Your task to perform on an android device: open a new tab in the chrome app Image 0: 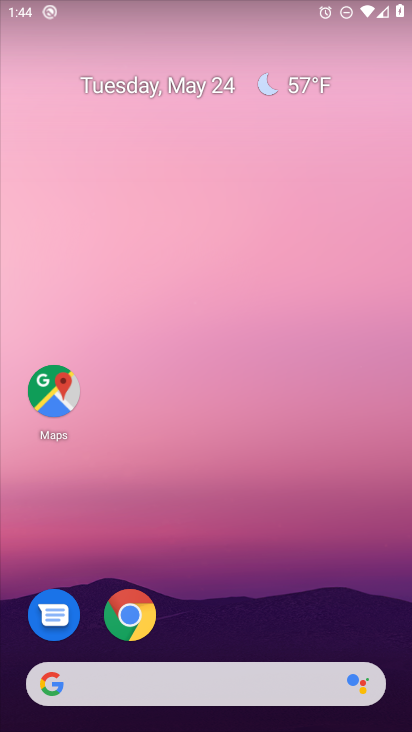
Step 0: click (136, 616)
Your task to perform on an android device: open a new tab in the chrome app Image 1: 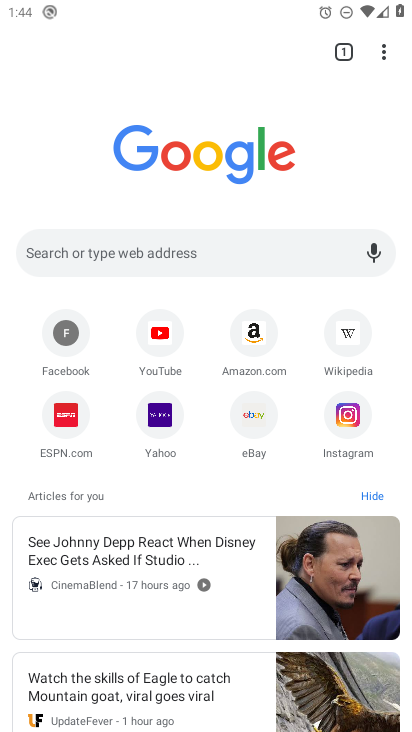
Step 1: click (383, 49)
Your task to perform on an android device: open a new tab in the chrome app Image 2: 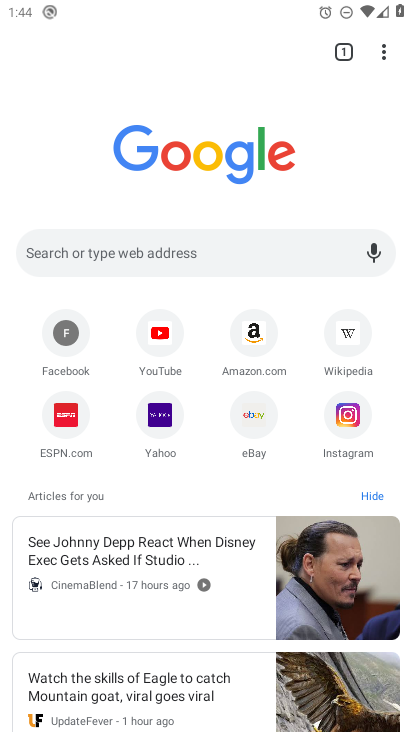
Step 2: click (383, 49)
Your task to perform on an android device: open a new tab in the chrome app Image 3: 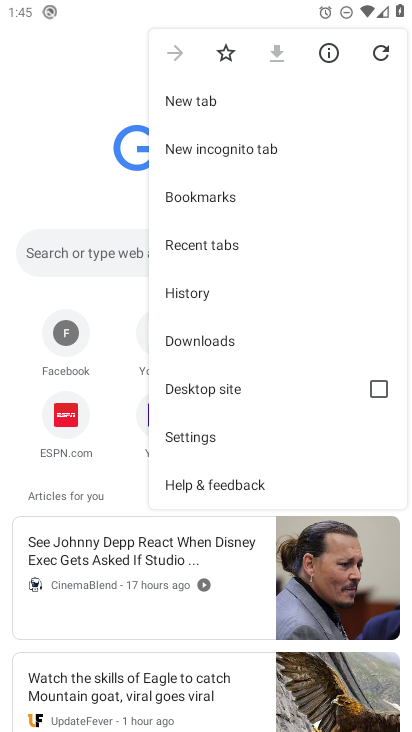
Step 3: click (208, 105)
Your task to perform on an android device: open a new tab in the chrome app Image 4: 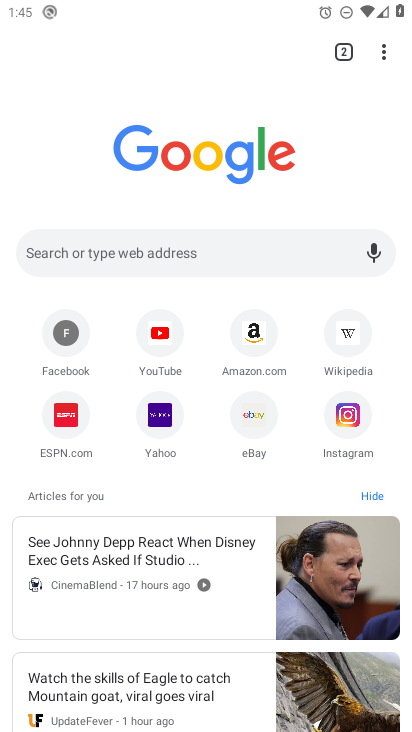
Step 4: task complete